Your task to perform on an android device: Open sound settings Image 0: 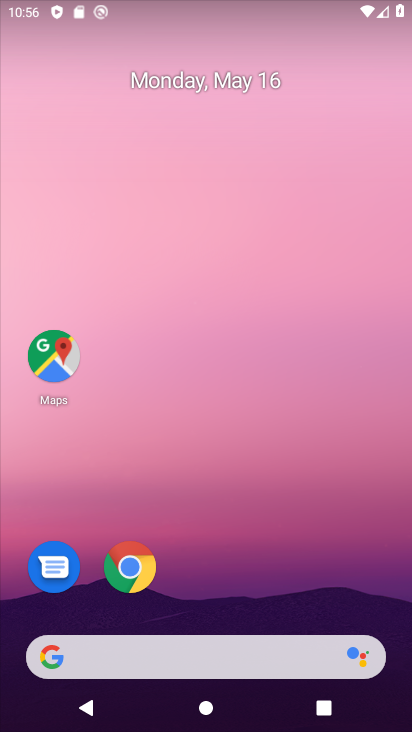
Step 0: drag from (194, 602) to (323, 2)
Your task to perform on an android device: Open sound settings Image 1: 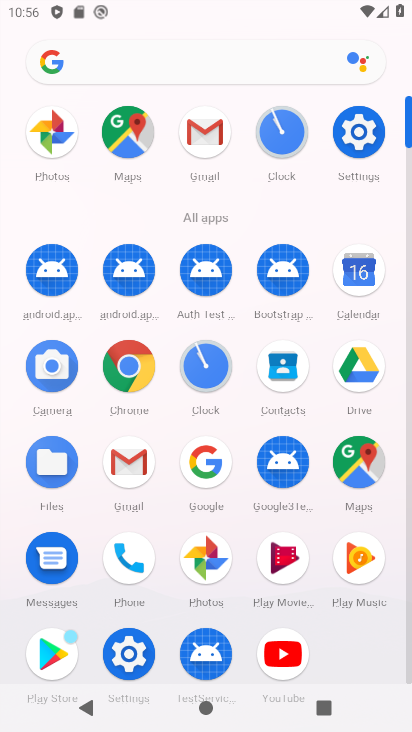
Step 1: click (135, 655)
Your task to perform on an android device: Open sound settings Image 2: 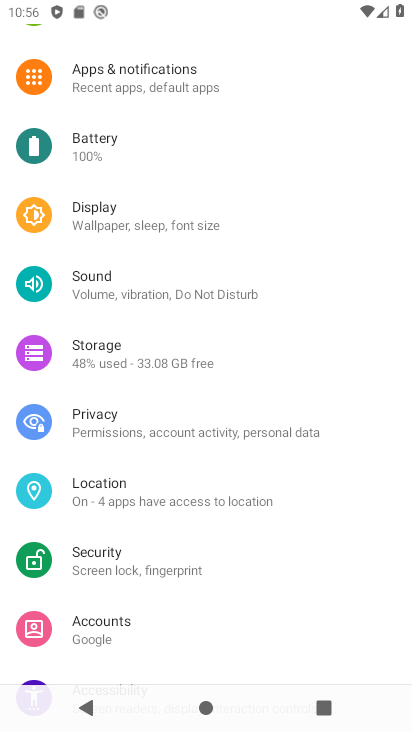
Step 2: click (148, 281)
Your task to perform on an android device: Open sound settings Image 3: 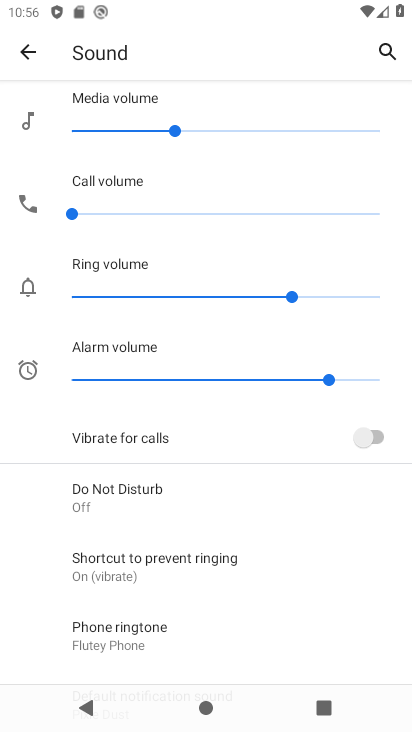
Step 3: task complete